Your task to perform on an android device: all mails in gmail Image 0: 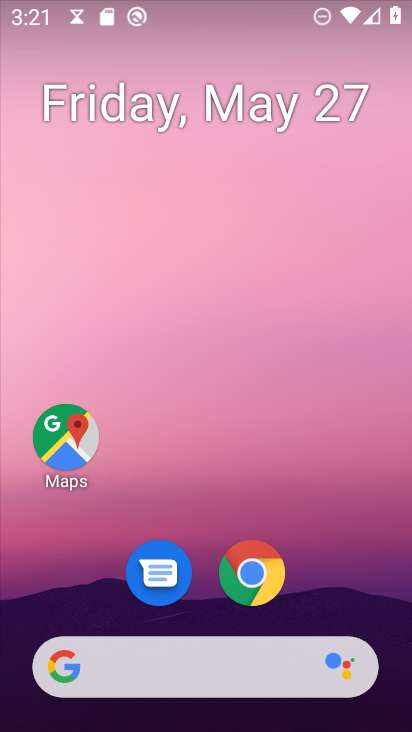
Step 0: drag from (329, 610) to (340, 47)
Your task to perform on an android device: all mails in gmail Image 1: 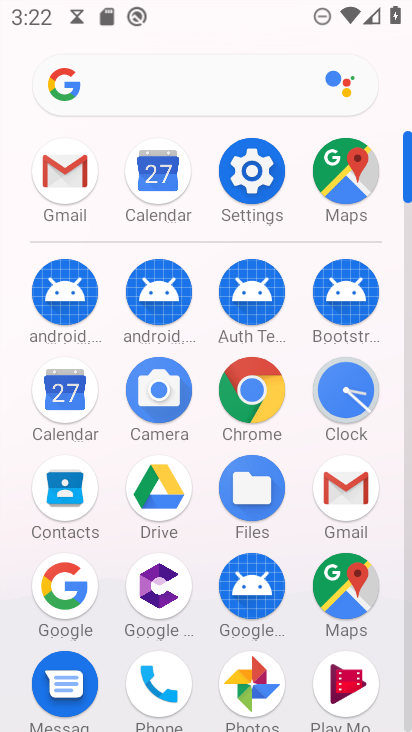
Step 1: click (73, 168)
Your task to perform on an android device: all mails in gmail Image 2: 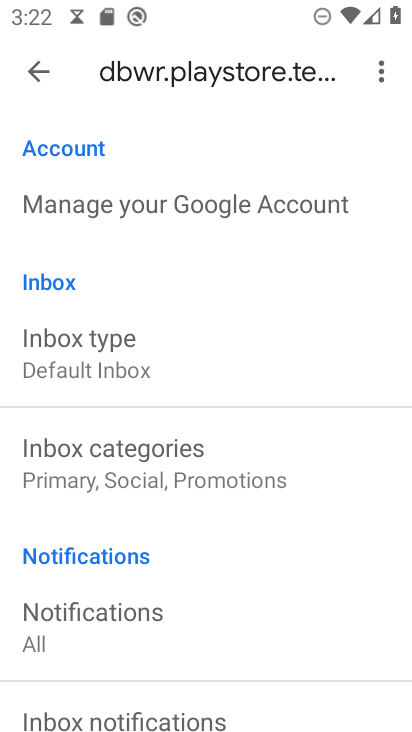
Step 2: click (27, 71)
Your task to perform on an android device: all mails in gmail Image 3: 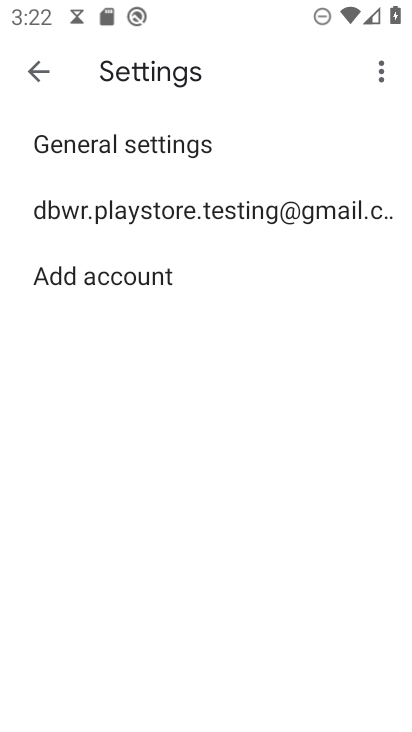
Step 3: click (27, 71)
Your task to perform on an android device: all mails in gmail Image 4: 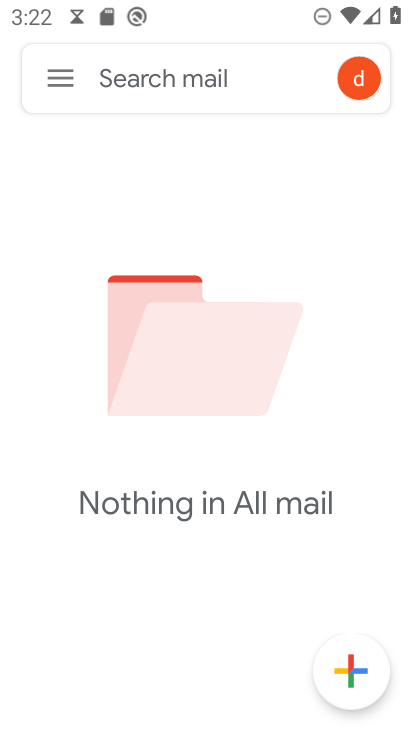
Step 4: task complete